Your task to perform on an android device: Show me recent news Image 0: 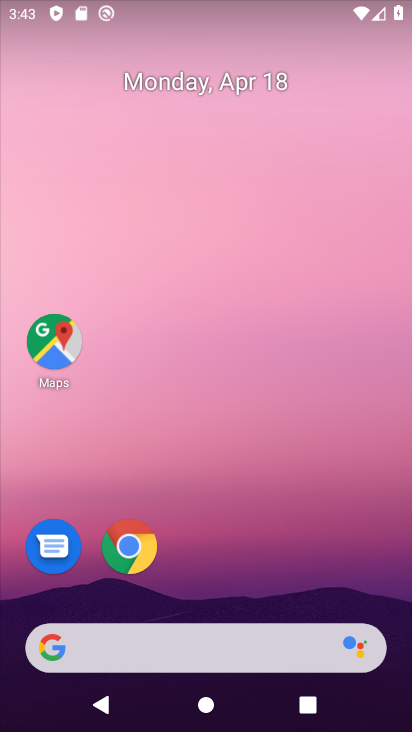
Step 0: click (135, 549)
Your task to perform on an android device: Show me recent news Image 1: 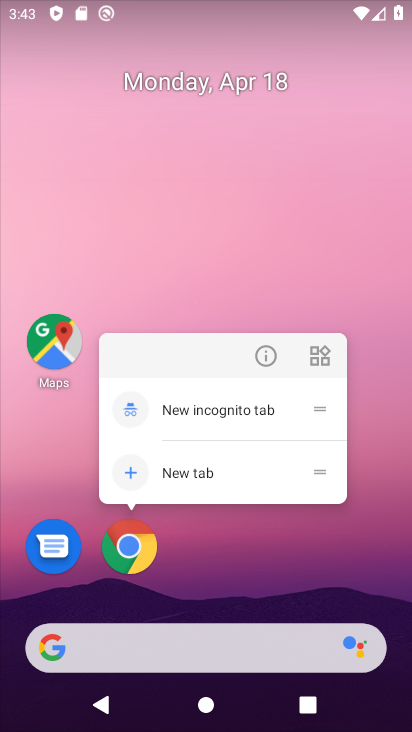
Step 1: drag from (310, 585) to (333, 3)
Your task to perform on an android device: Show me recent news Image 2: 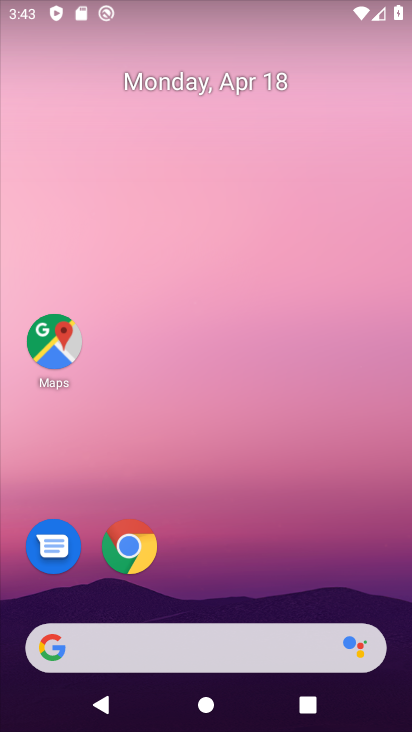
Step 2: drag from (267, 563) to (302, 111)
Your task to perform on an android device: Show me recent news Image 3: 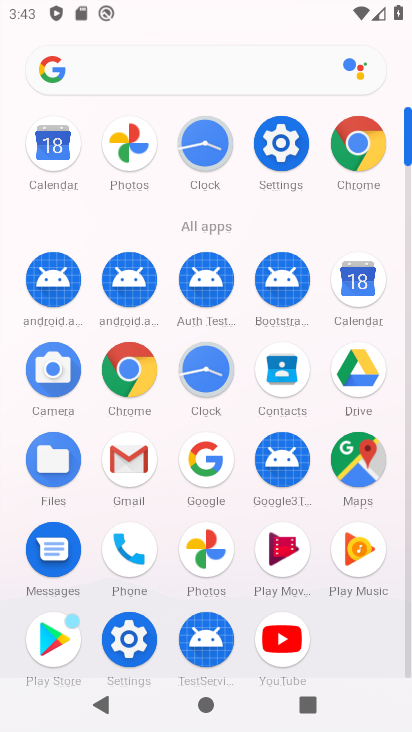
Step 3: click (139, 374)
Your task to perform on an android device: Show me recent news Image 4: 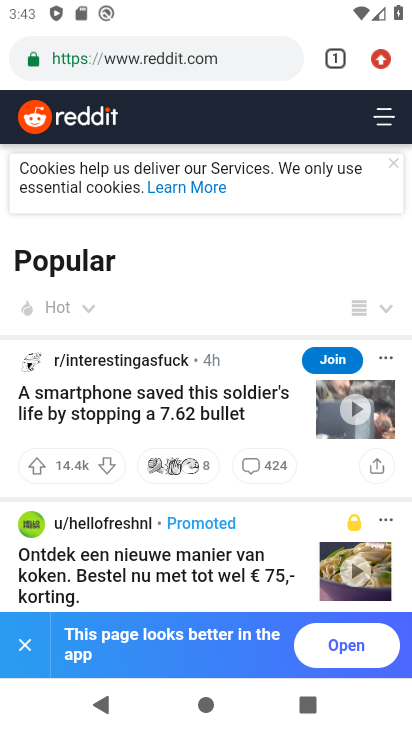
Step 4: click (210, 58)
Your task to perform on an android device: Show me recent news Image 5: 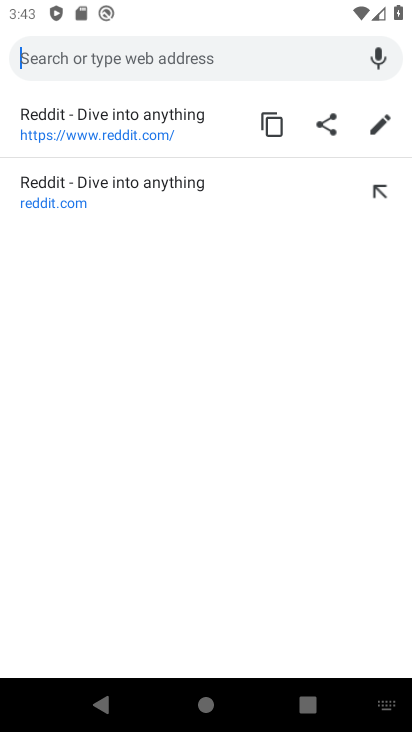
Step 5: type "recent news"
Your task to perform on an android device: Show me recent news Image 6: 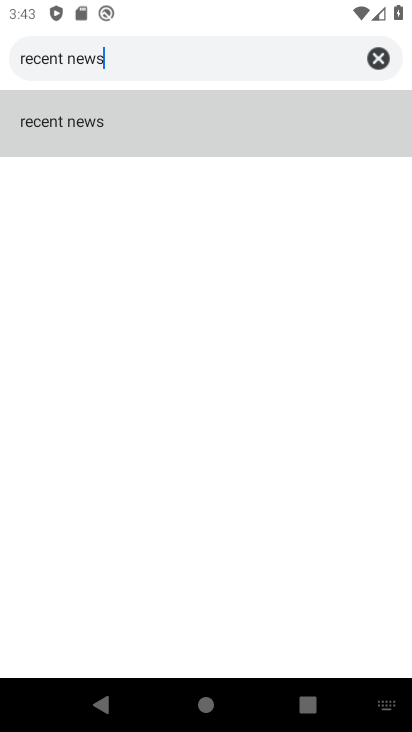
Step 6: click (51, 120)
Your task to perform on an android device: Show me recent news Image 7: 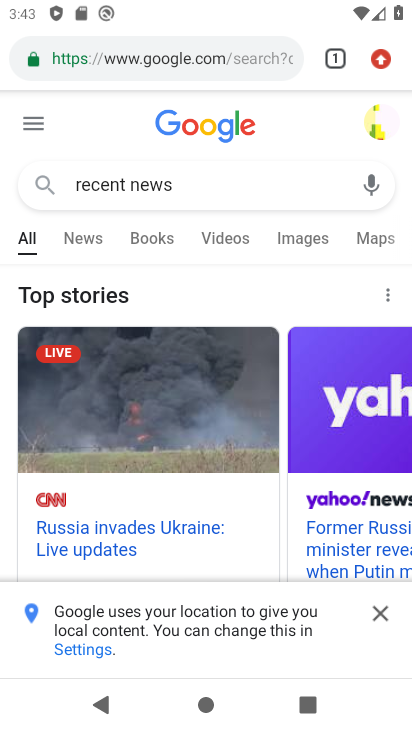
Step 7: task complete